Your task to perform on an android device: change notification settings in the gmail app Image 0: 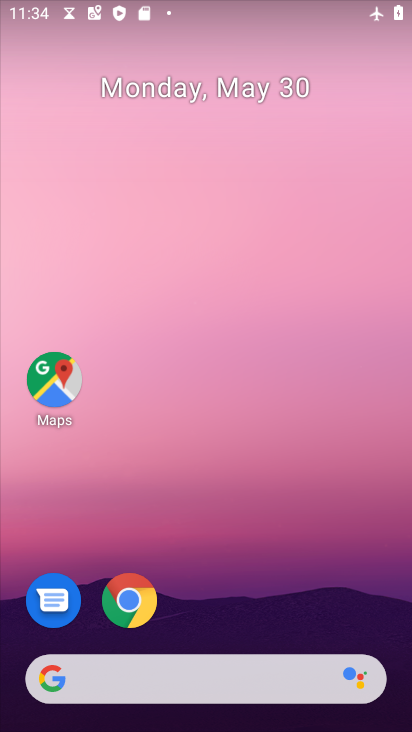
Step 0: drag from (241, 682) to (220, 37)
Your task to perform on an android device: change notification settings in the gmail app Image 1: 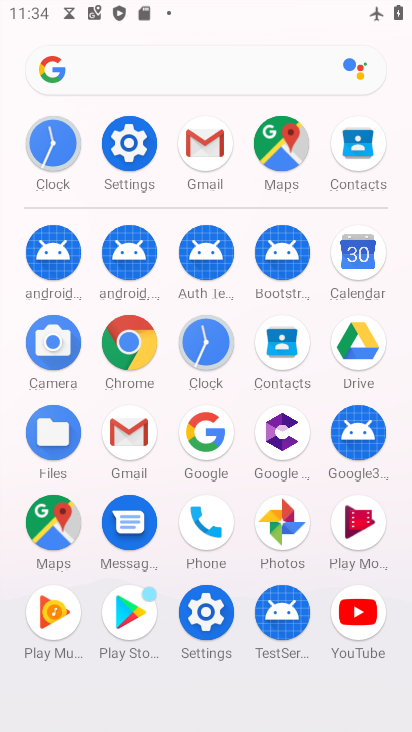
Step 1: click (127, 429)
Your task to perform on an android device: change notification settings in the gmail app Image 2: 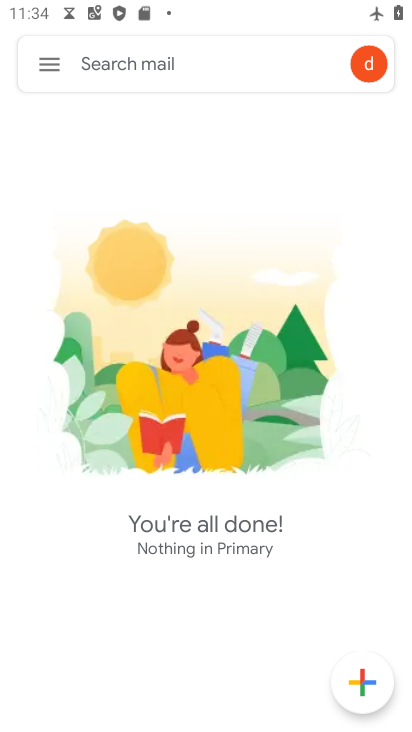
Step 2: click (52, 61)
Your task to perform on an android device: change notification settings in the gmail app Image 3: 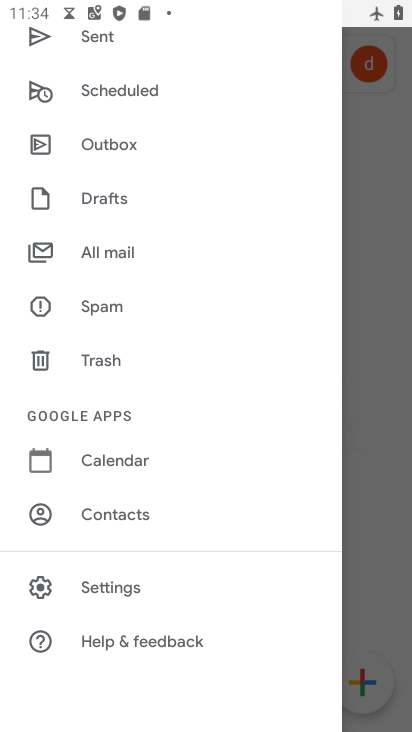
Step 3: click (124, 586)
Your task to perform on an android device: change notification settings in the gmail app Image 4: 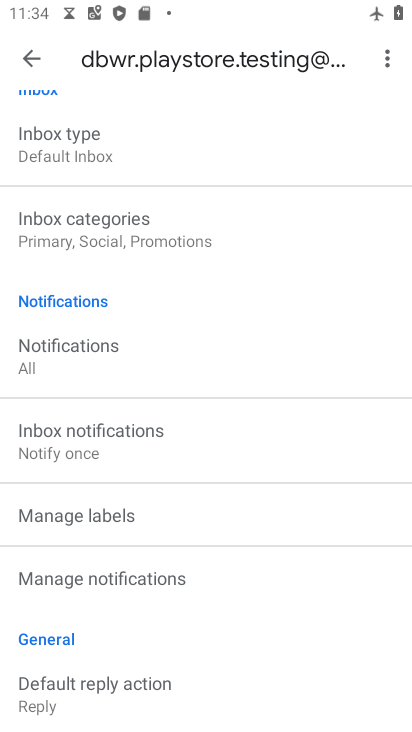
Step 4: click (76, 353)
Your task to perform on an android device: change notification settings in the gmail app Image 5: 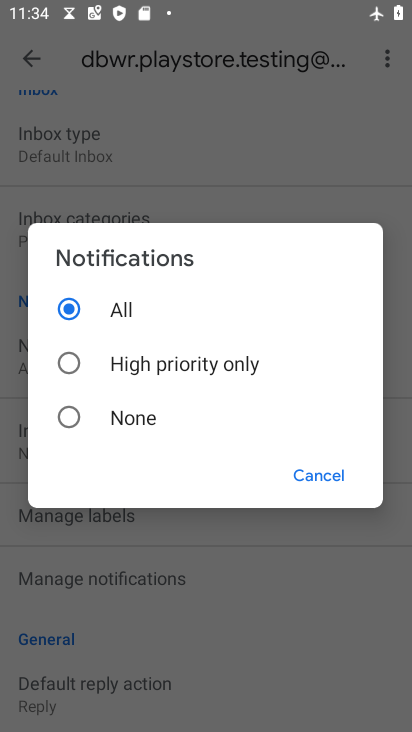
Step 5: click (66, 419)
Your task to perform on an android device: change notification settings in the gmail app Image 6: 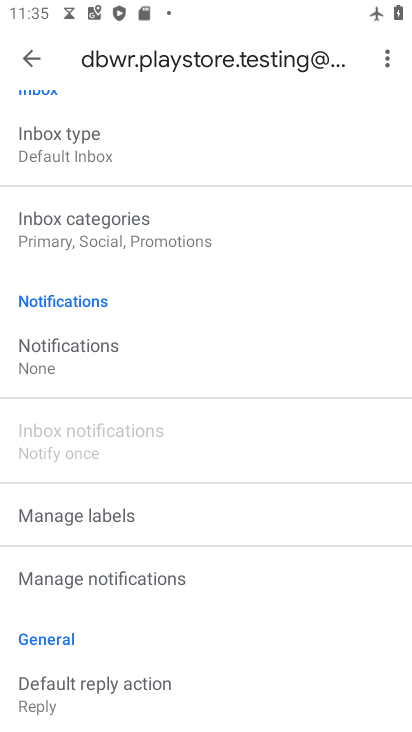
Step 6: task complete